Your task to perform on an android device: install app "WhatsApp Messenger" Image 0: 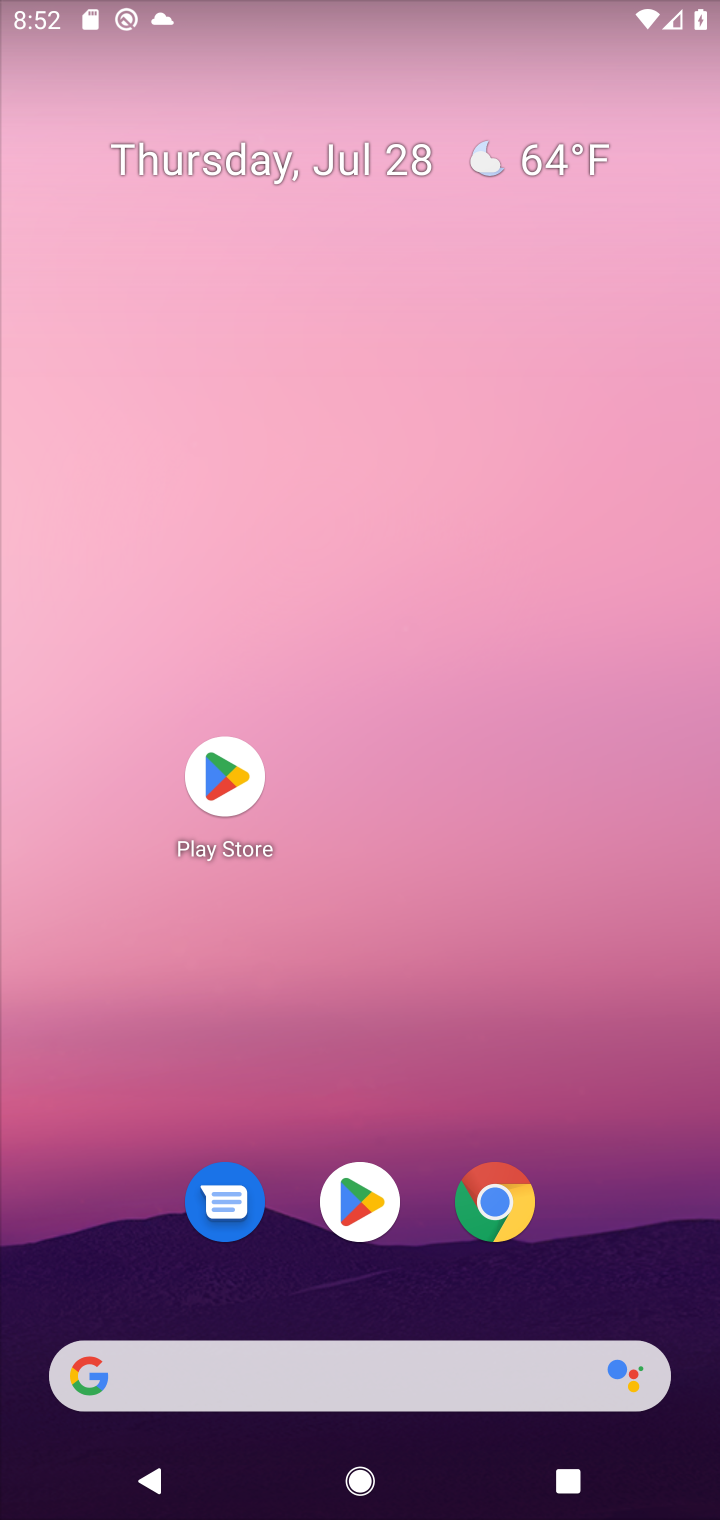
Step 0: click (357, 1202)
Your task to perform on an android device: install app "WhatsApp Messenger" Image 1: 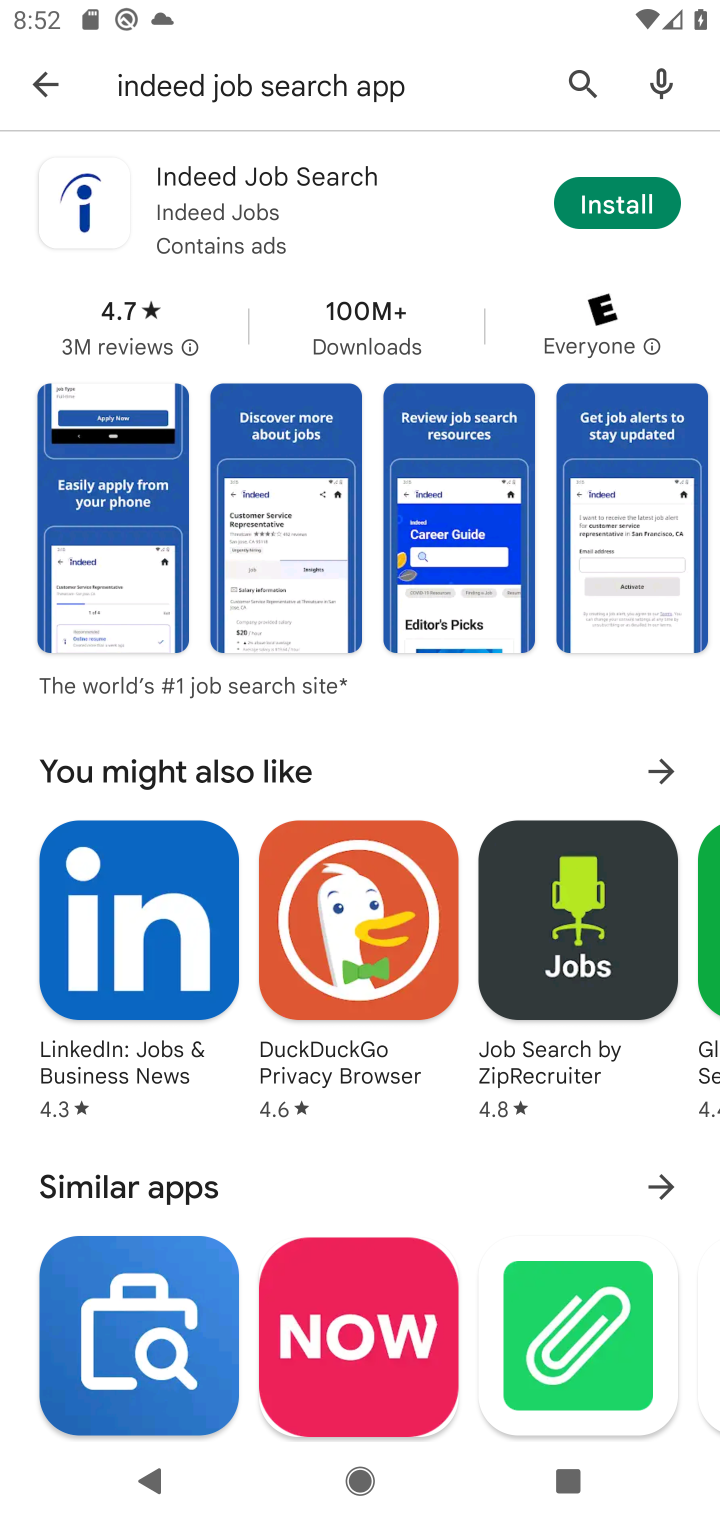
Step 1: click (575, 70)
Your task to perform on an android device: install app "WhatsApp Messenger" Image 2: 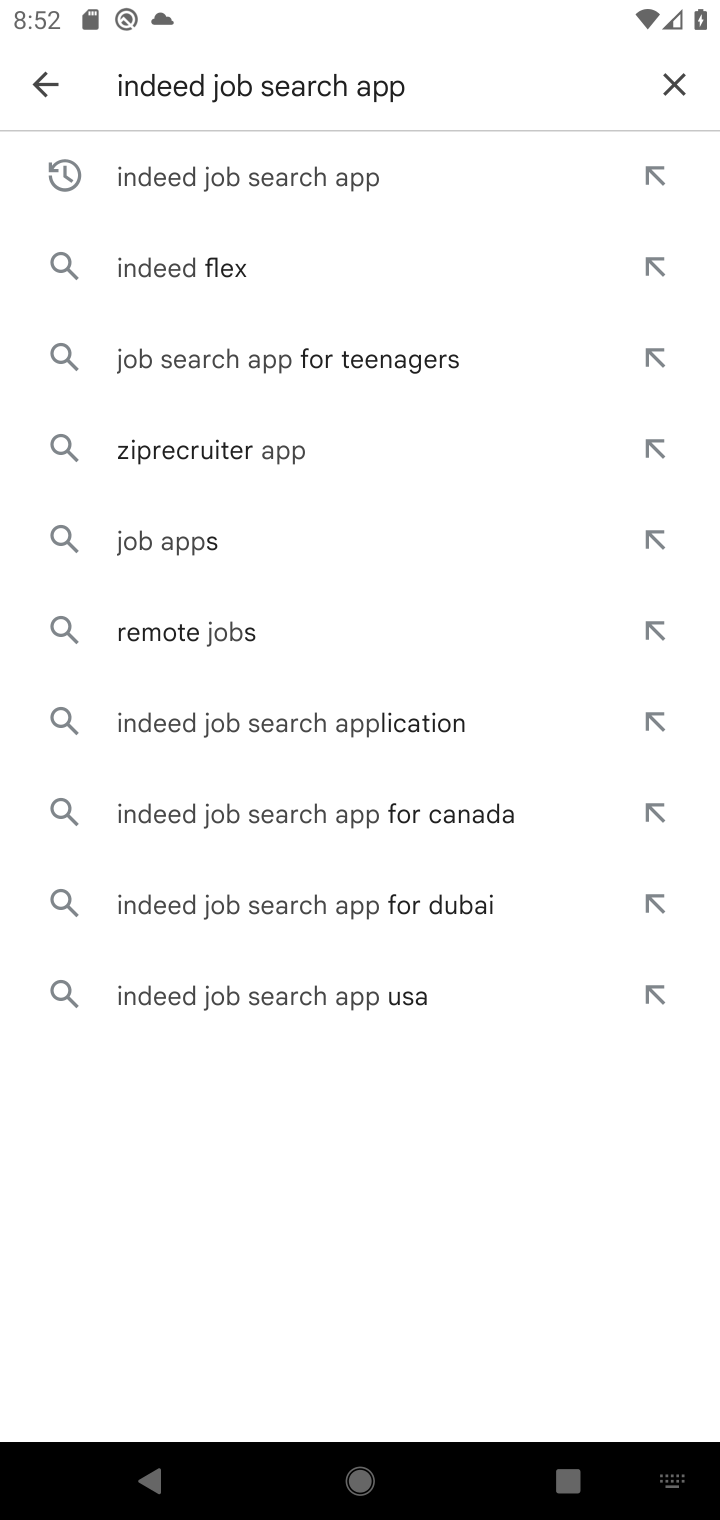
Step 2: click (667, 84)
Your task to perform on an android device: install app "WhatsApp Messenger" Image 3: 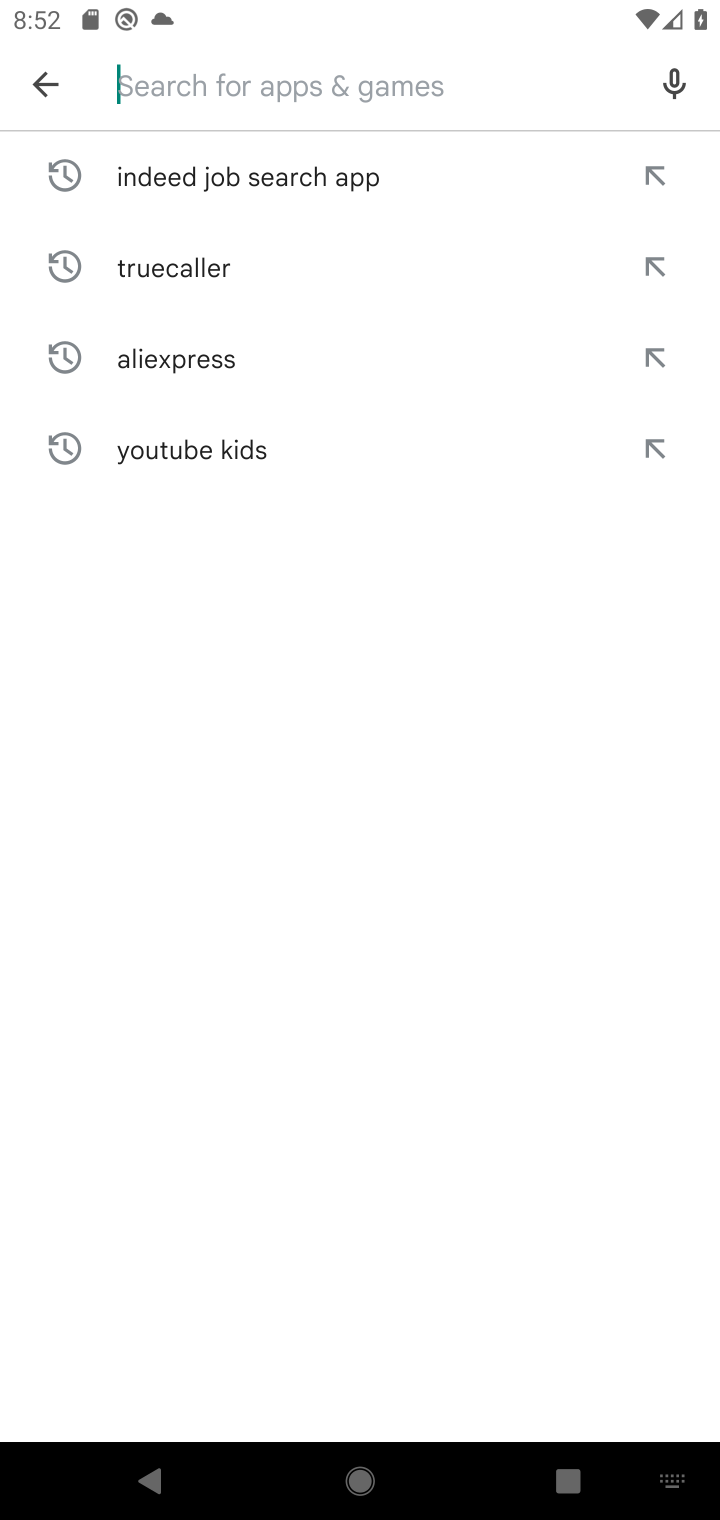
Step 3: type "WhatsApp Messenger"
Your task to perform on an android device: install app "WhatsApp Messenger" Image 4: 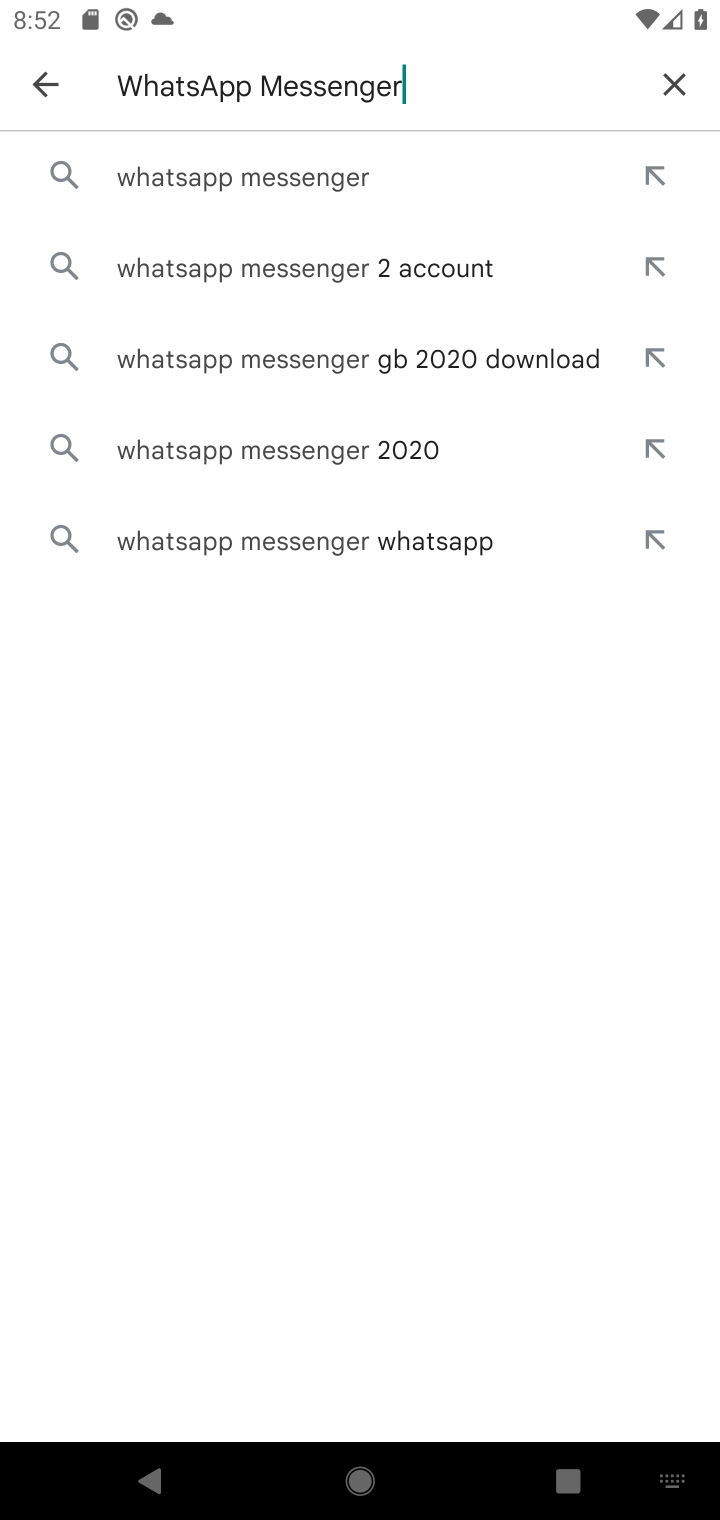
Step 4: click (349, 178)
Your task to perform on an android device: install app "WhatsApp Messenger" Image 5: 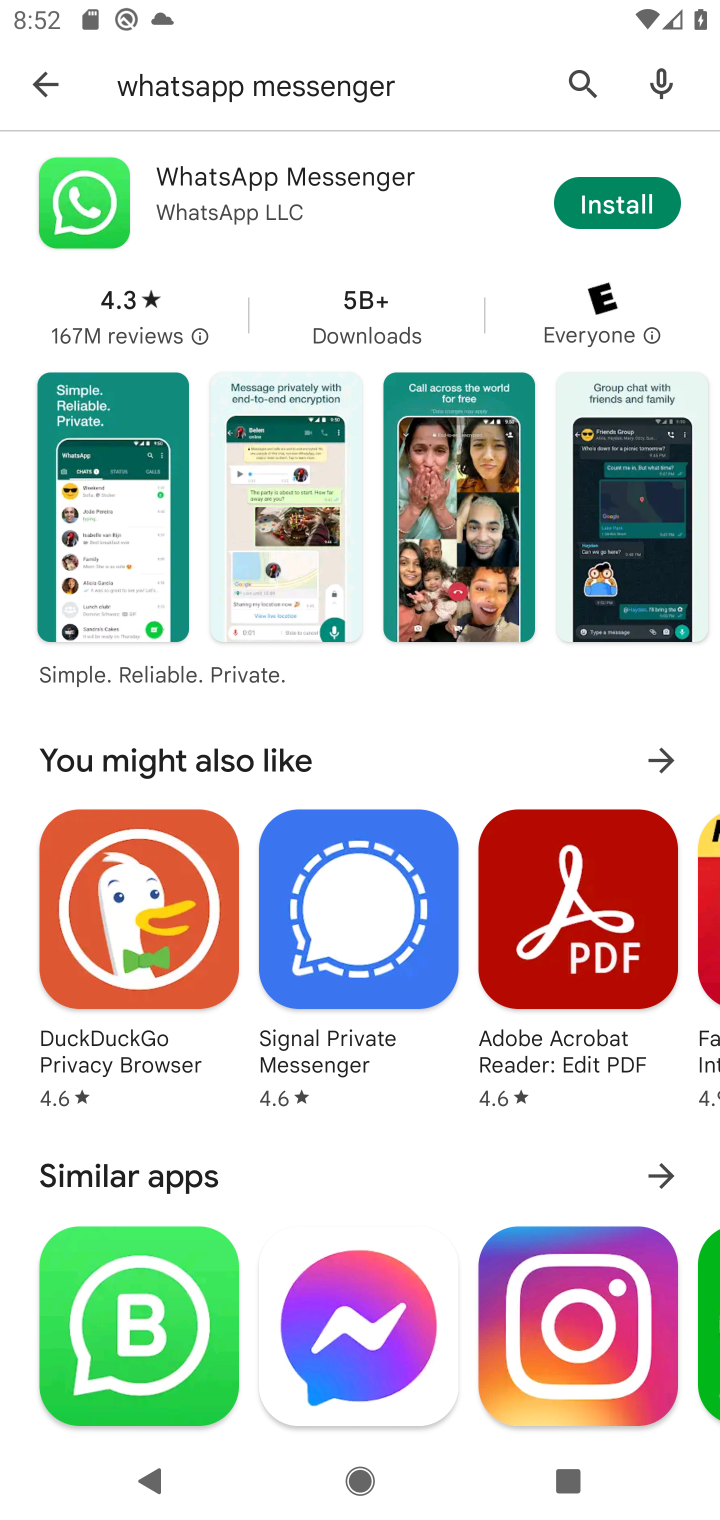
Step 5: click (608, 198)
Your task to perform on an android device: install app "WhatsApp Messenger" Image 6: 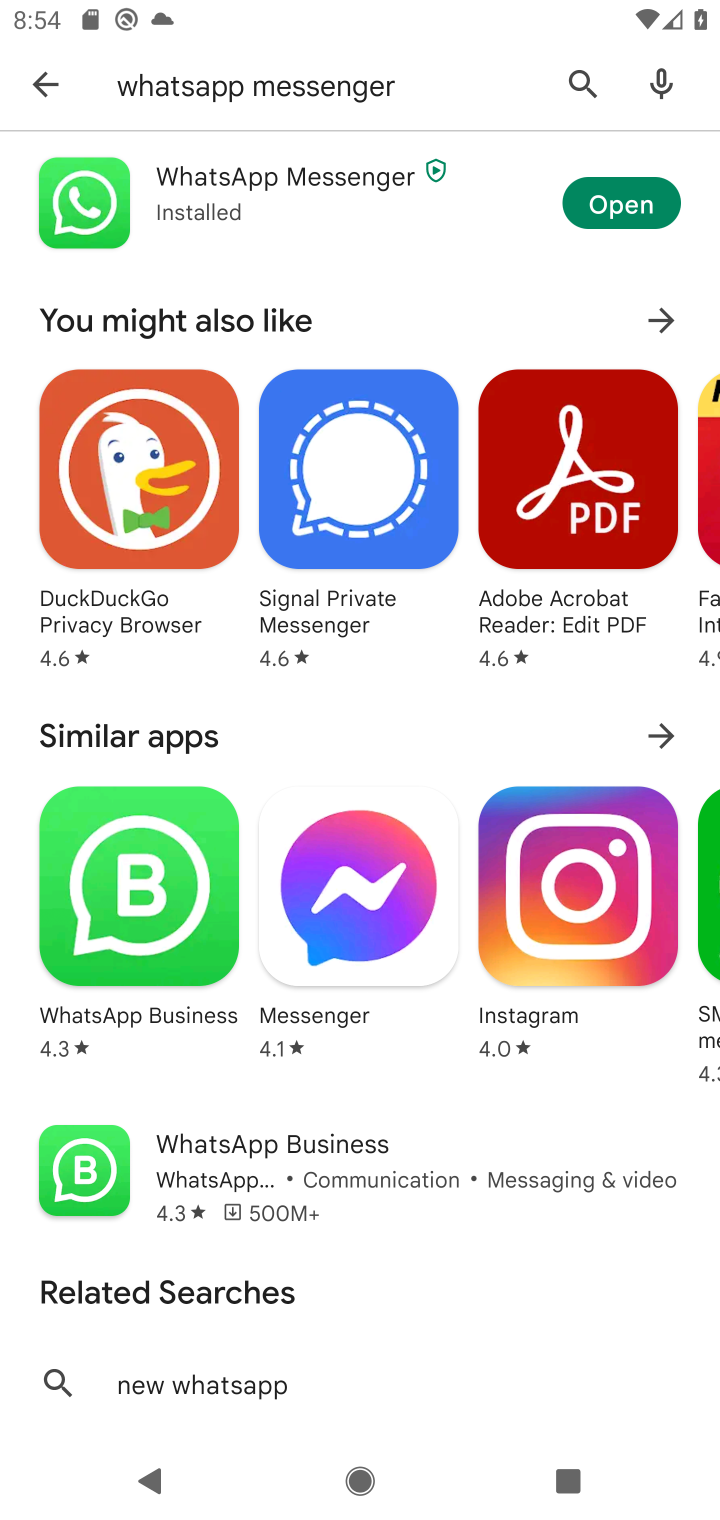
Step 6: task complete